Your task to perform on an android device: open app "Google Docs" (install if not already installed) Image 0: 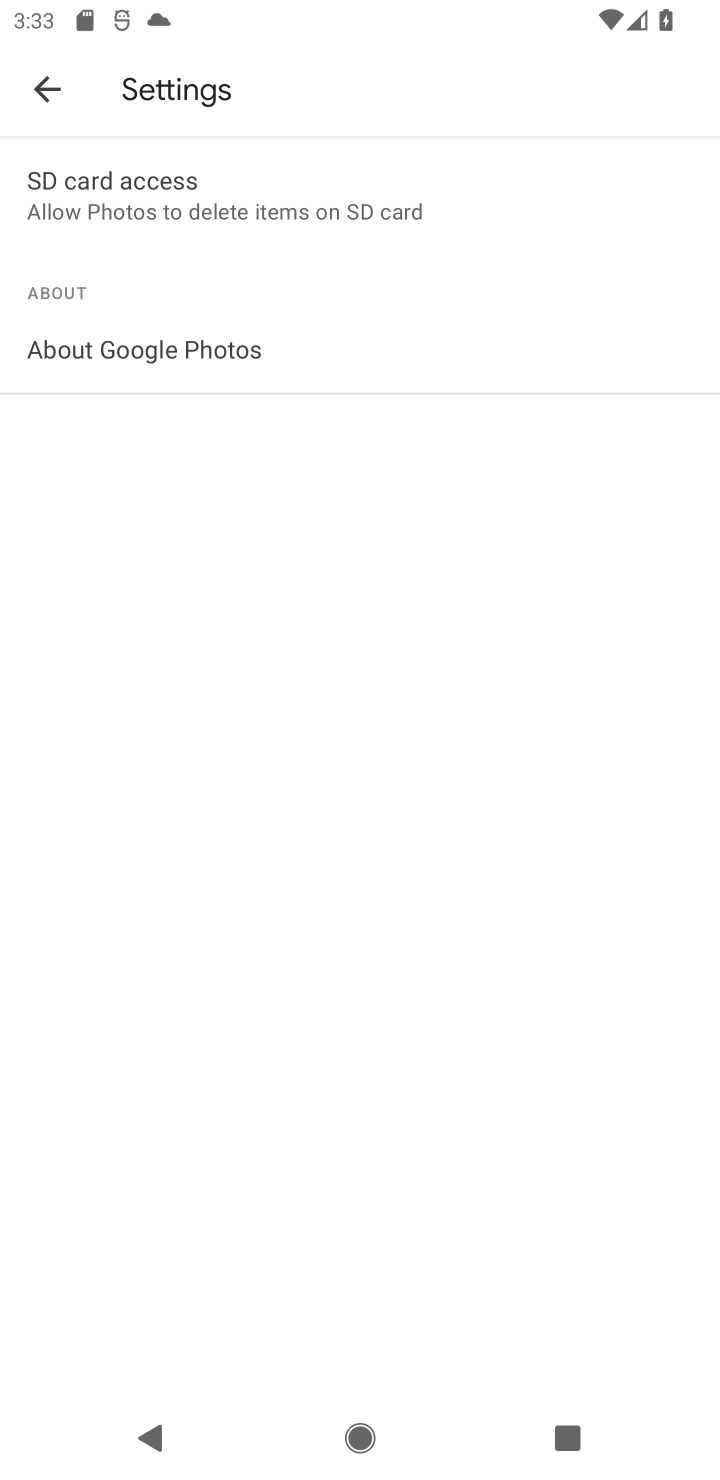
Step 0: press home button
Your task to perform on an android device: open app "Google Docs" (install if not already installed) Image 1: 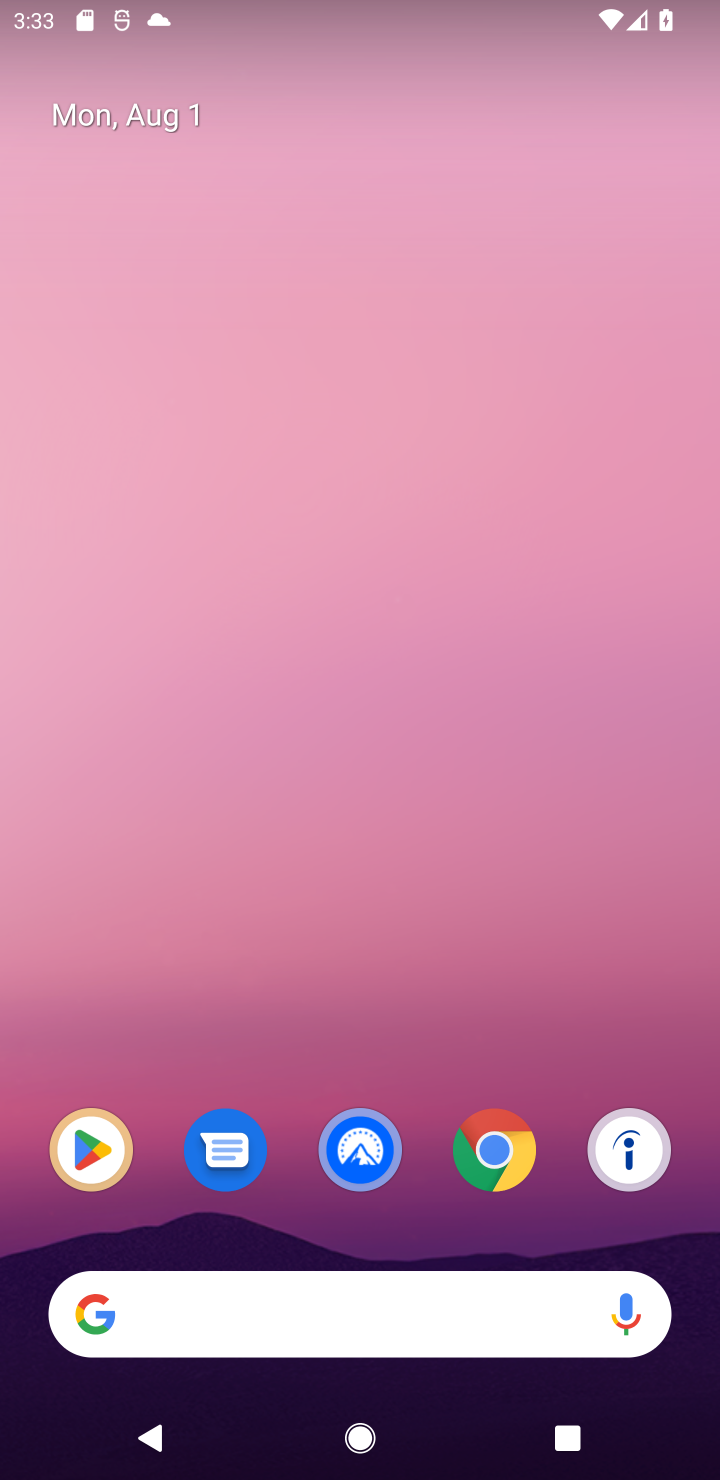
Step 1: drag from (305, 1228) to (376, 4)
Your task to perform on an android device: open app "Google Docs" (install if not already installed) Image 2: 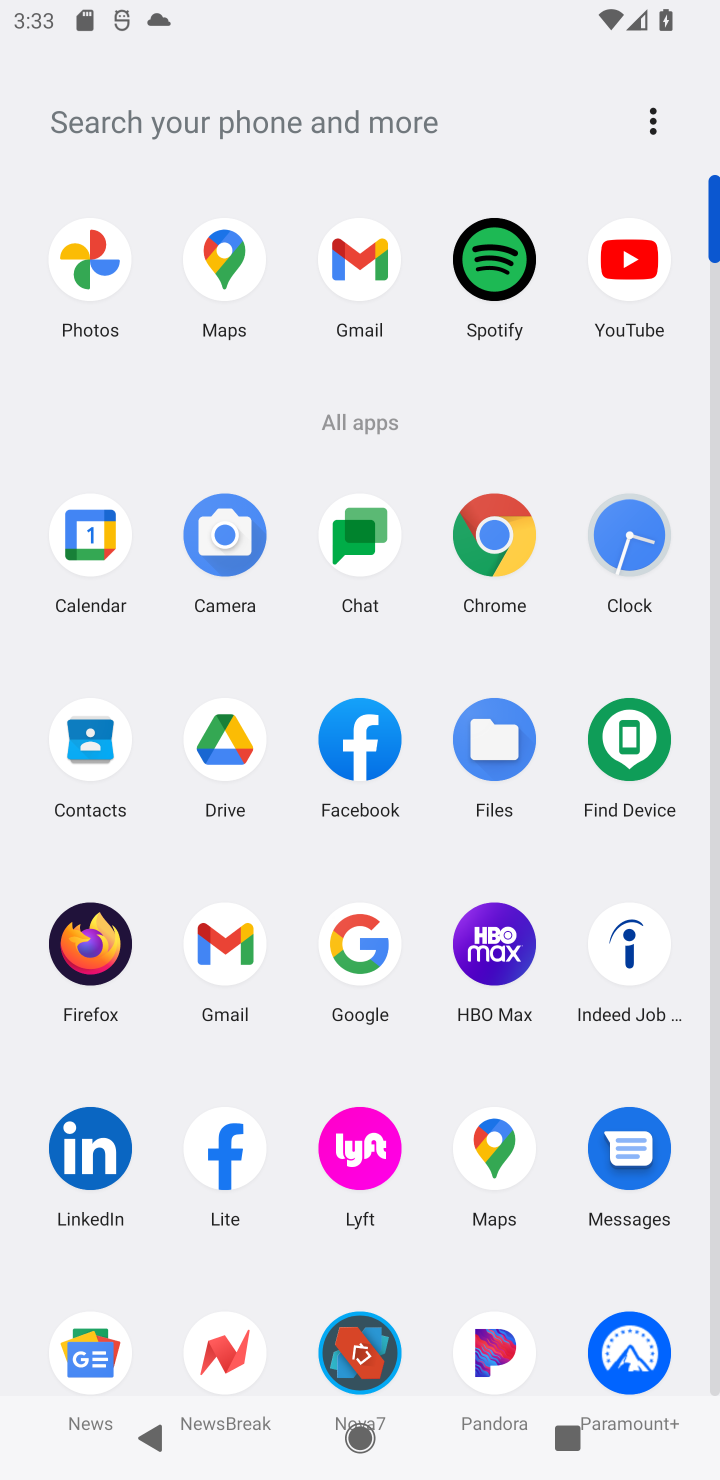
Step 2: press back button
Your task to perform on an android device: open app "Google Docs" (install if not already installed) Image 3: 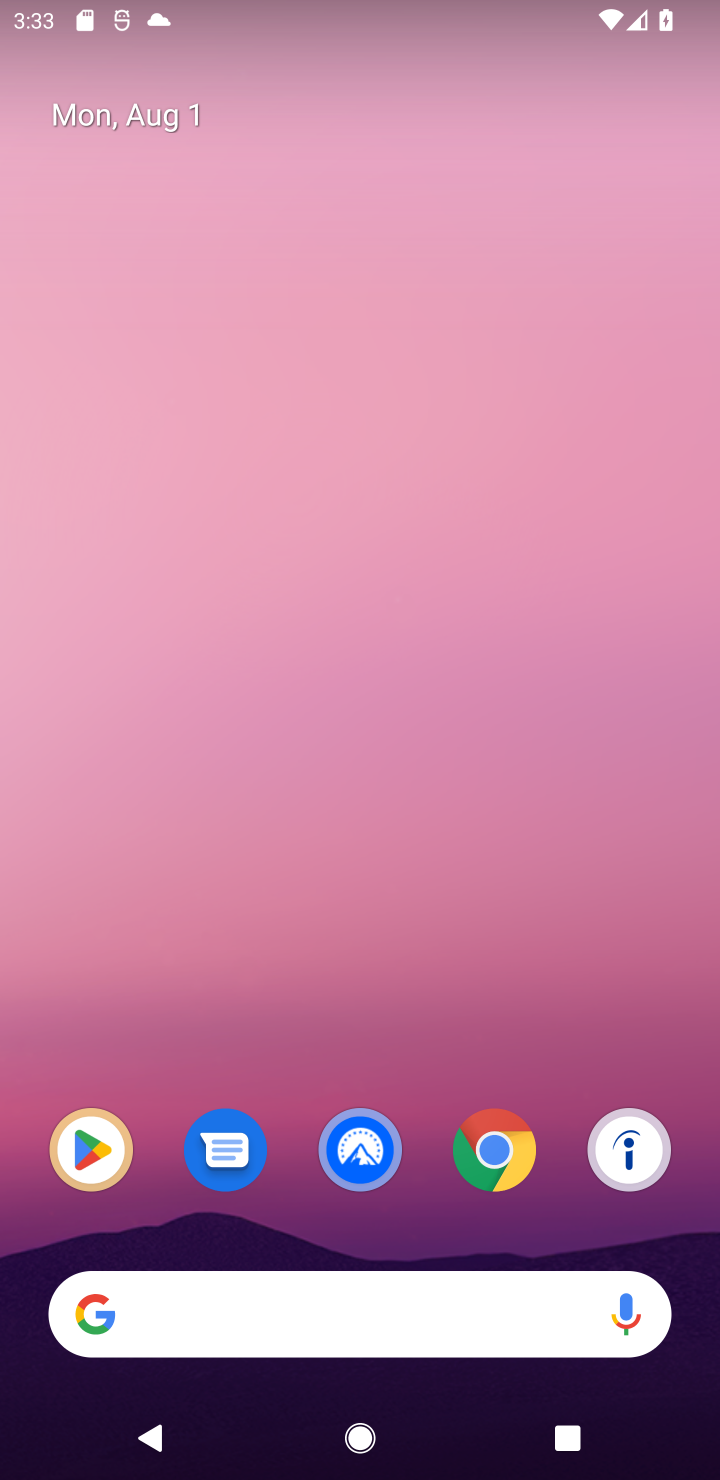
Step 3: click (92, 1182)
Your task to perform on an android device: open app "Google Docs" (install if not already installed) Image 4: 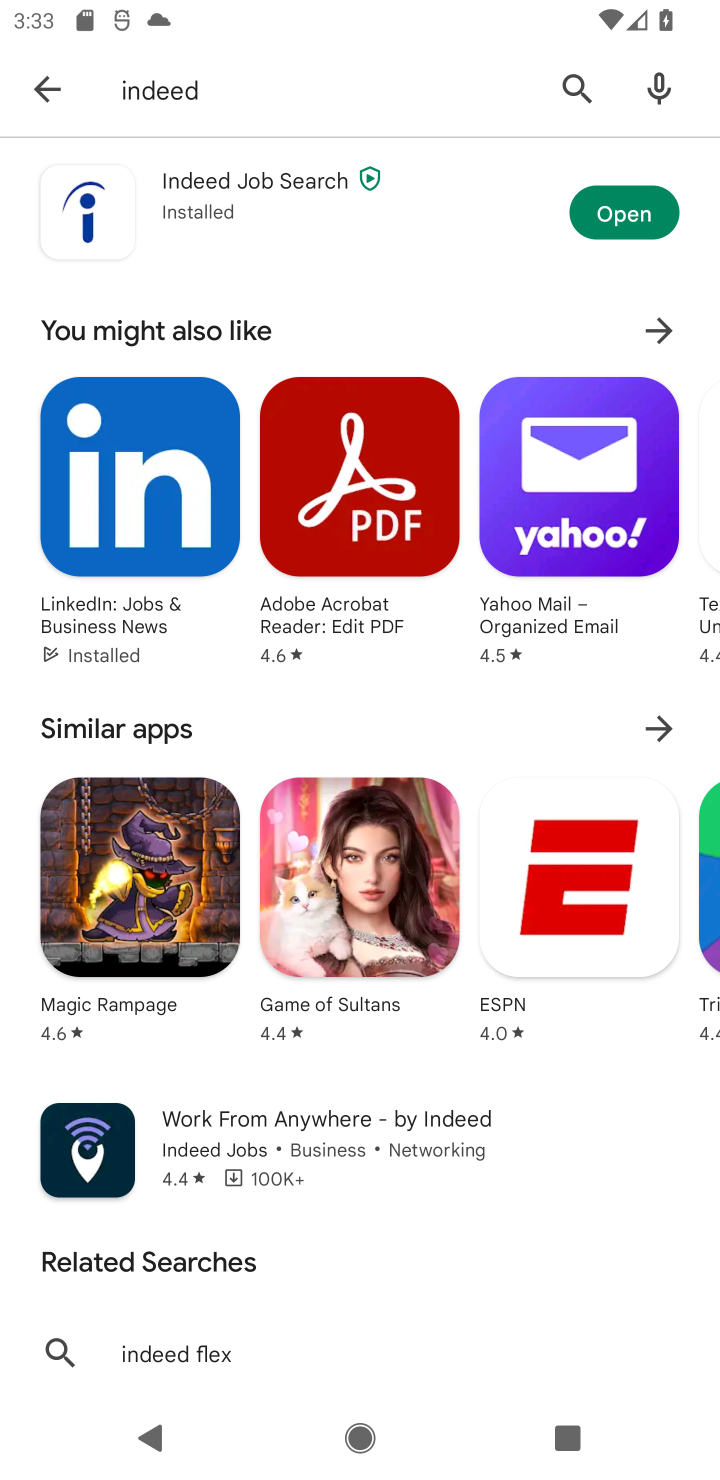
Step 4: click (596, 77)
Your task to perform on an android device: open app "Google Docs" (install if not already installed) Image 5: 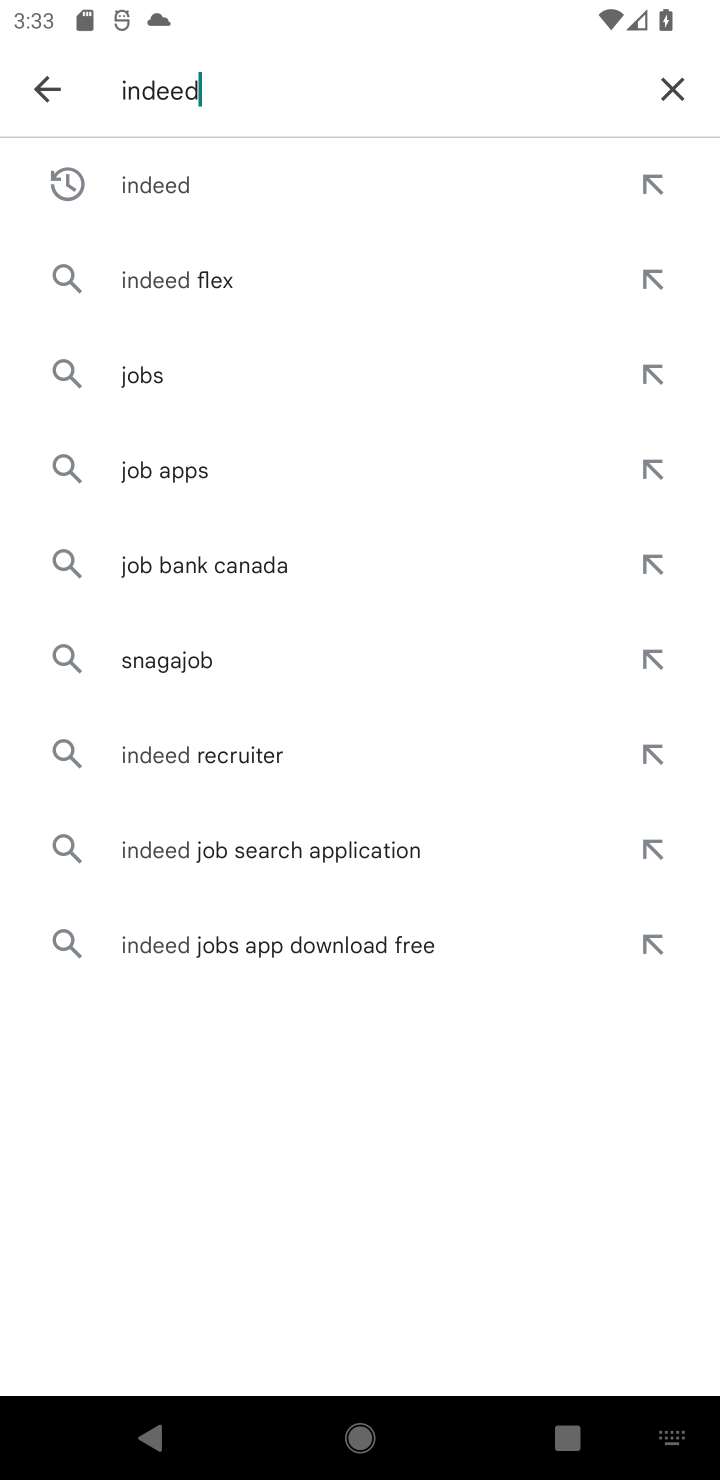
Step 5: click (647, 74)
Your task to perform on an android device: open app "Google Docs" (install if not already installed) Image 6: 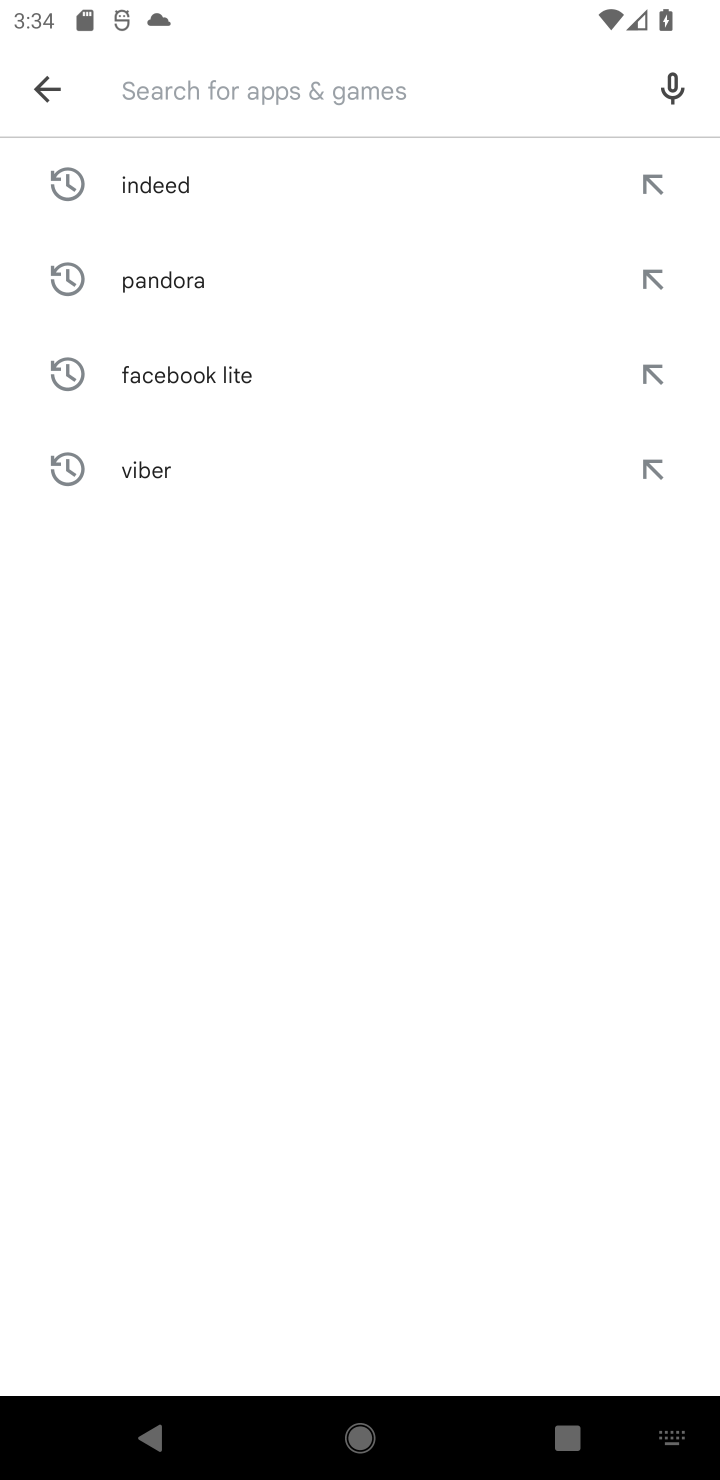
Step 6: type "google doc"
Your task to perform on an android device: open app "Google Docs" (install if not already installed) Image 7: 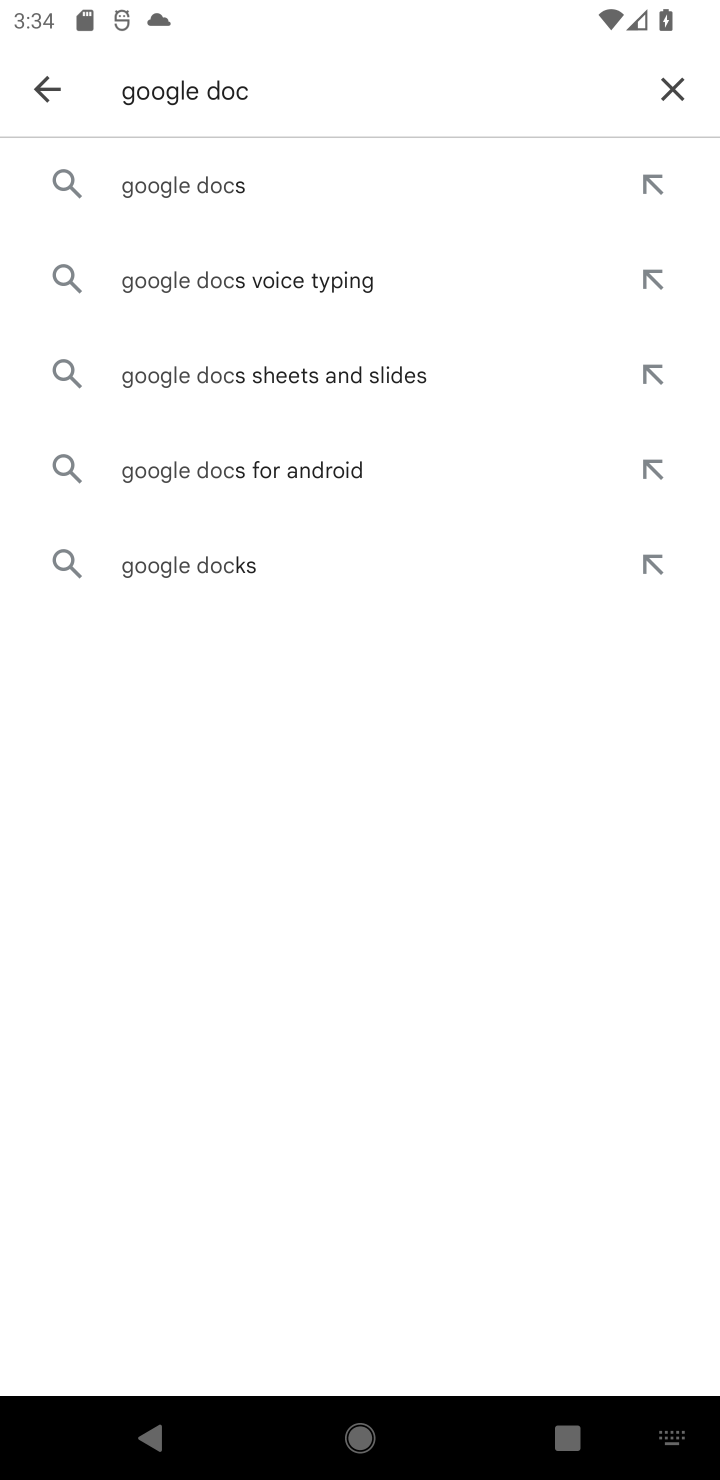
Step 7: click (171, 224)
Your task to perform on an android device: open app "Google Docs" (install if not already installed) Image 8: 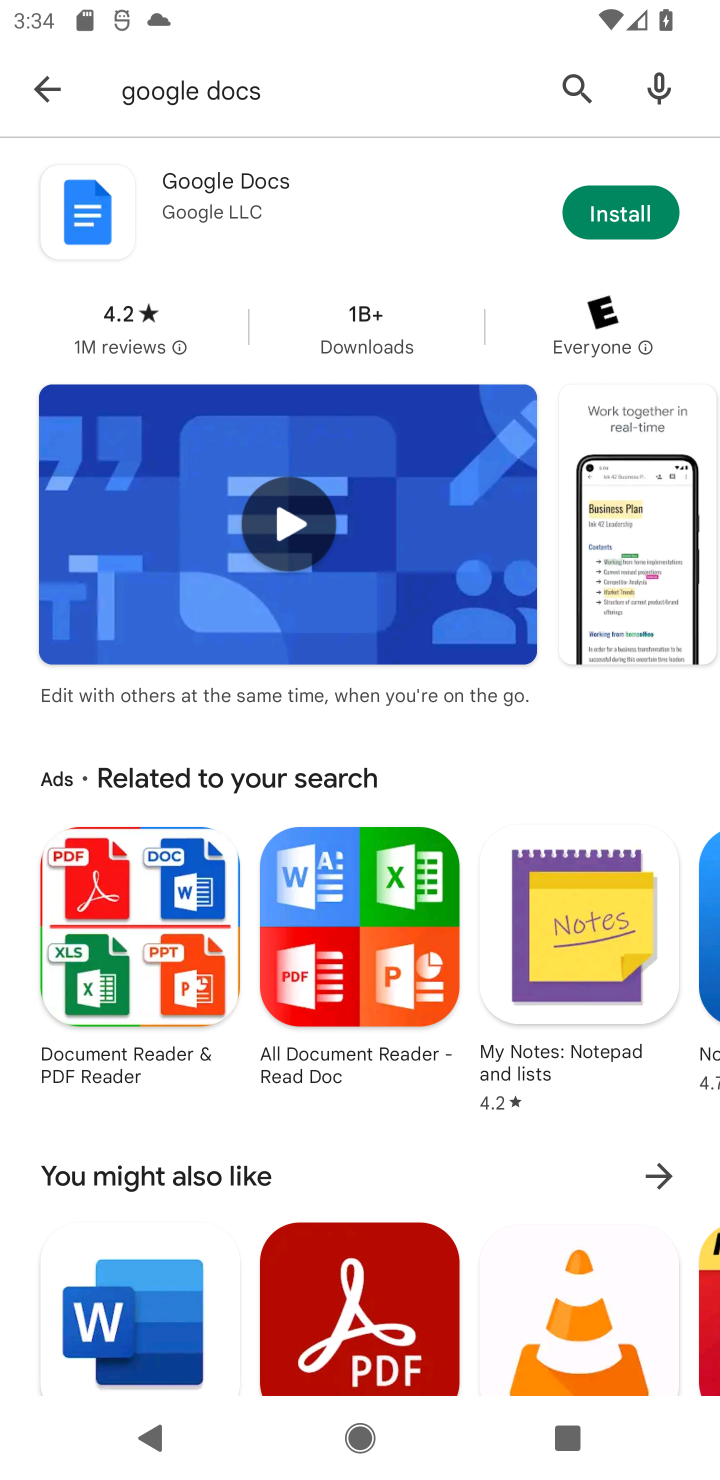
Step 8: click (637, 212)
Your task to perform on an android device: open app "Google Docs" (install if not already installed) Image 9: 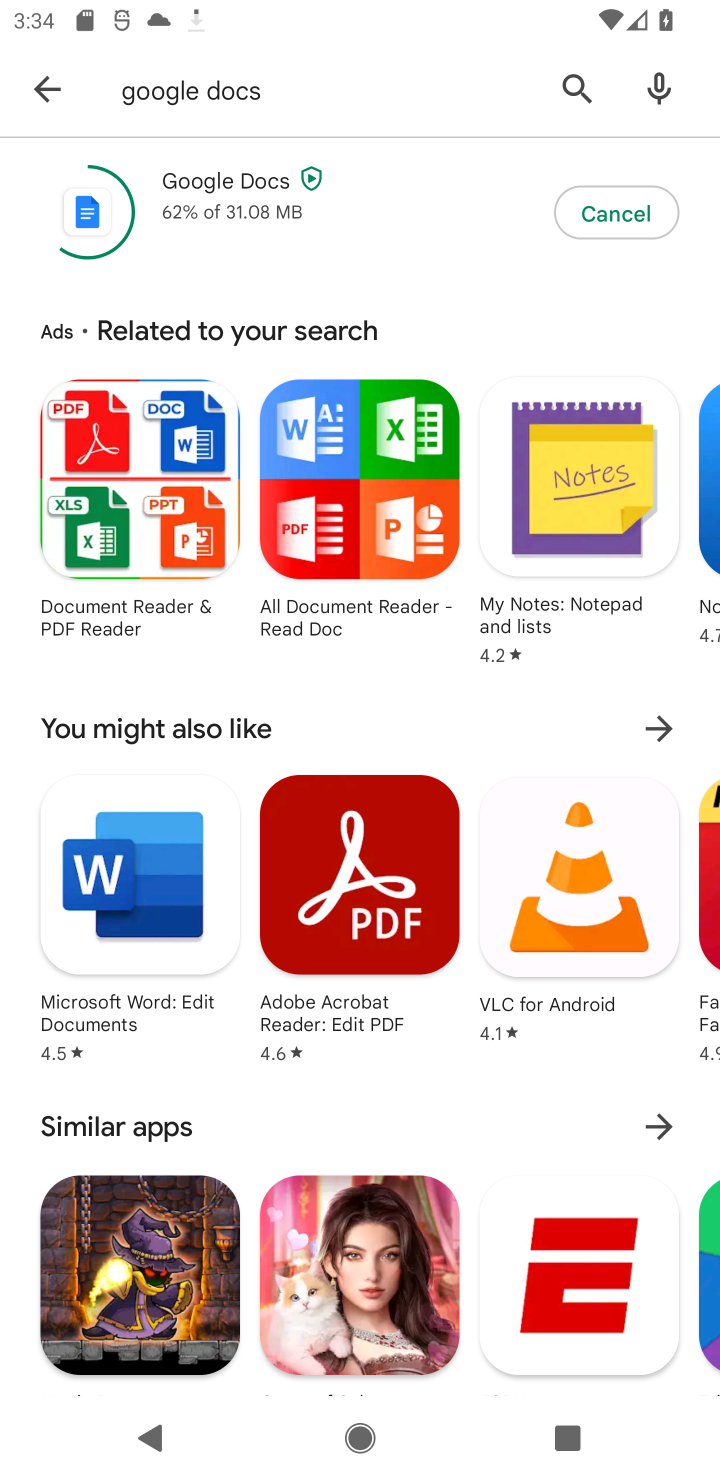
Step 9: task complete